Your task to perform on an android device: remove spam from my inbox in the gmail app Image 0: 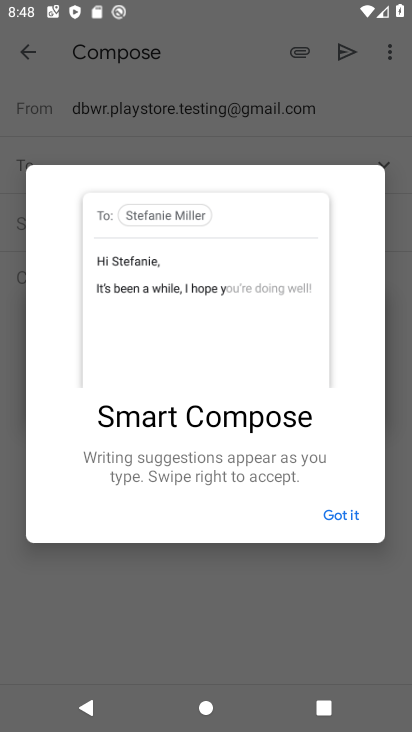
Step 0: press home button
Your task to perform on an android device: remove spam from my inbox in the gmail app Image 1: 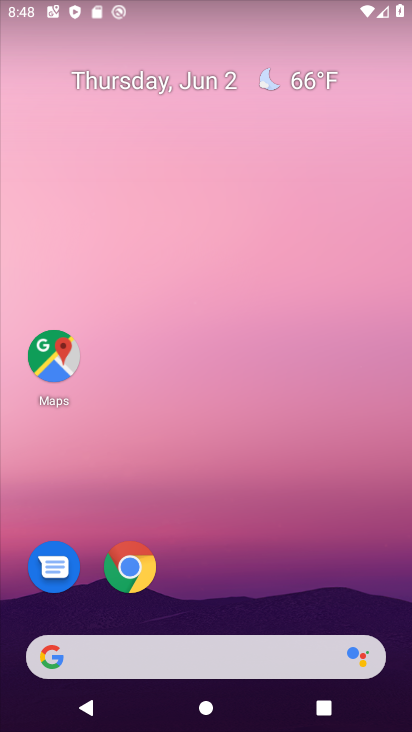
Step 1: drag from (190, 610) to (234, 172)
Your task to perform on an android device: remove spam from my inbox in the gmail app Image 2: 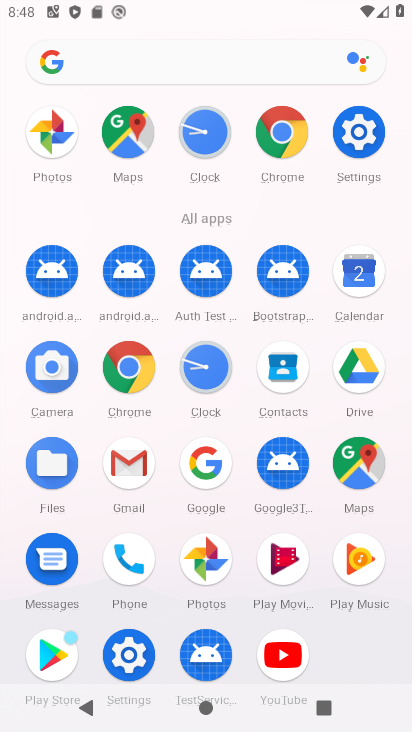
Step 2: click (145, 468)
Your task to perform on an android device: remove spam from my inbox in the gmail app Image 3: 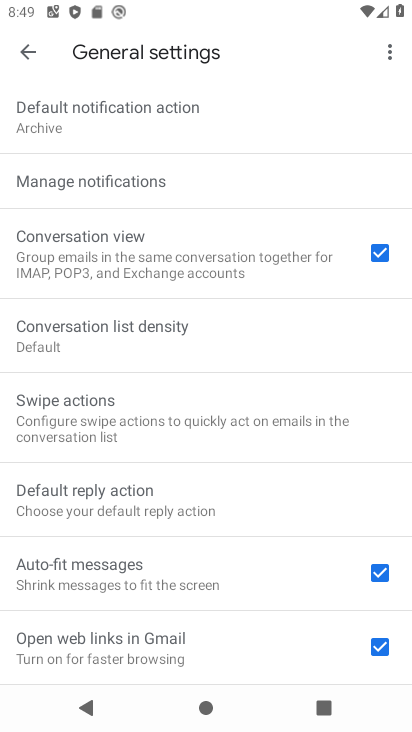
Step 3: click (35, 57)
Your task to perform on an android device: remove spam from my inbox in the gmail app Image 4: 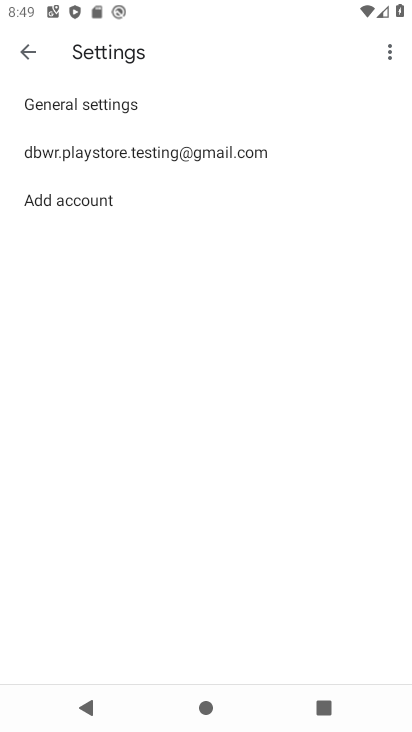
Step 4: click (35, 57)
Your task to perform on an android device: remove spam from my inbox in the gmail app Image 5: 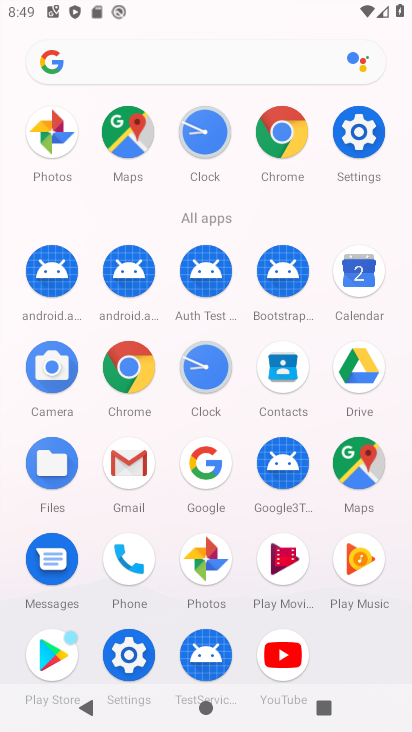
Step 5: click (136, 471)
Your task to perform on an android device: remove spam from my inbox in the gmail app Image 6: 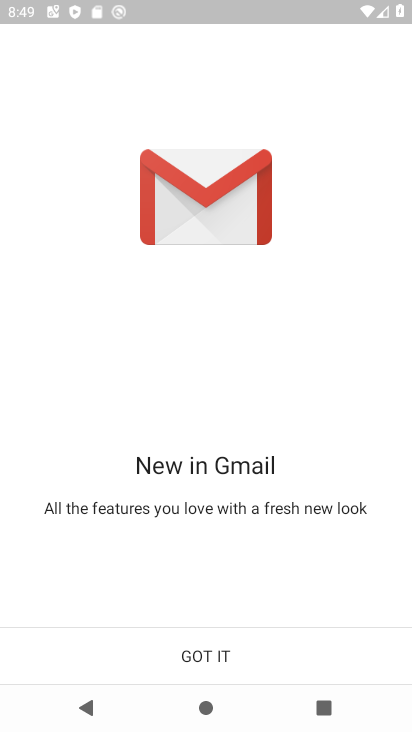
Step 6: click (224, 661)
Your task to perform on an android device: remove spam from my inbox in the gmail app Image 7: 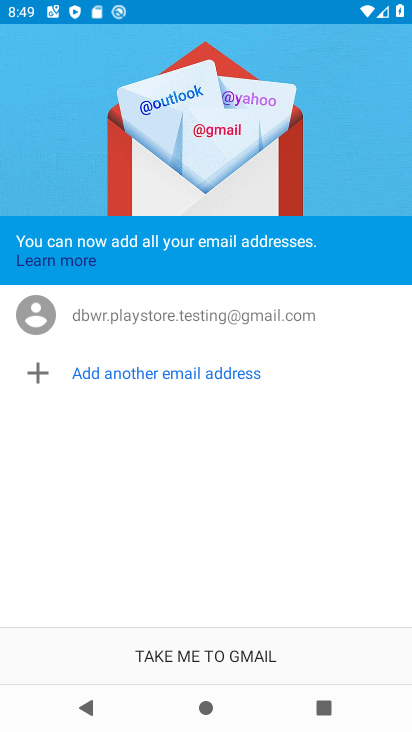
Step 7: click (225, 658)
Your task to perform on an android device: remove spam from my inbox in the gmail app Image 8: 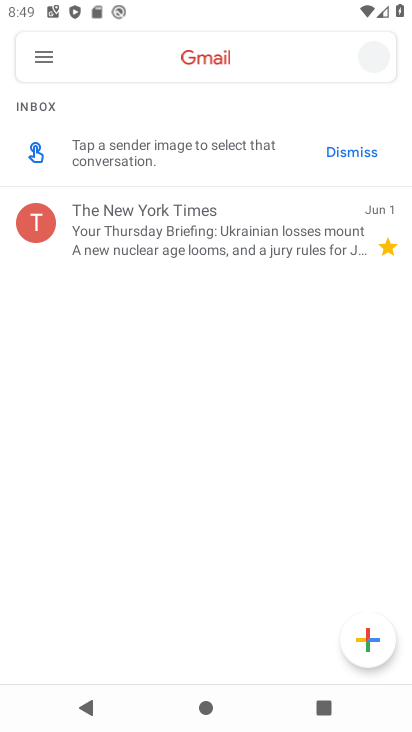
Step 8: click (47, 72)
Your task to perform on an android device: remove spam from my inbox in the gmail app Image 9: 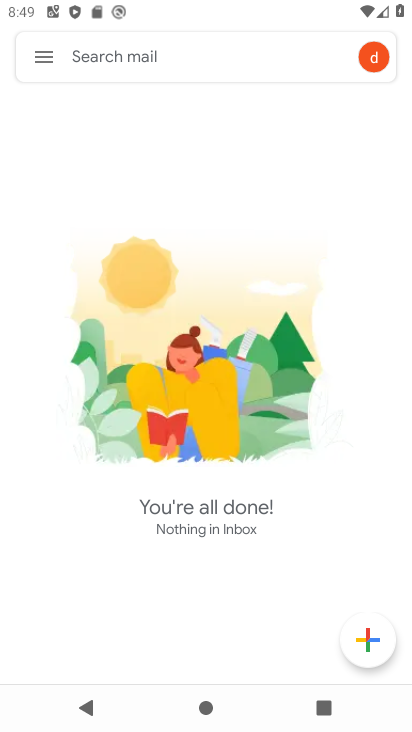
Step 9: click (38, 65)
Your task to perform on an android device: remove spam from my inbox in the gmail app Image 10: 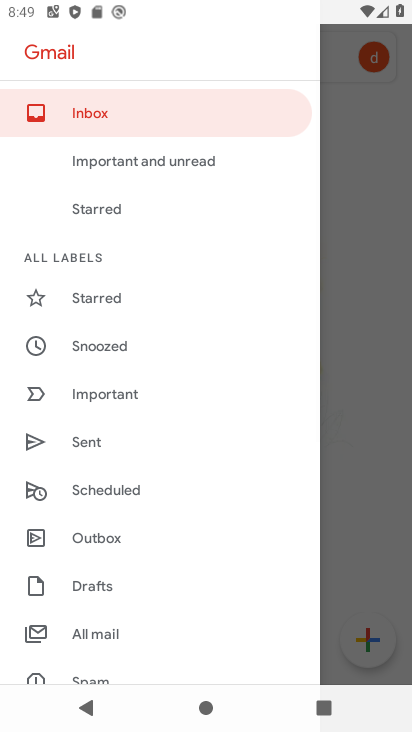
Step 10: drag from (109, 589) to (131, 305)
Your task to perform on an android device: remove spam from my inbox in the gmail app Image 11: 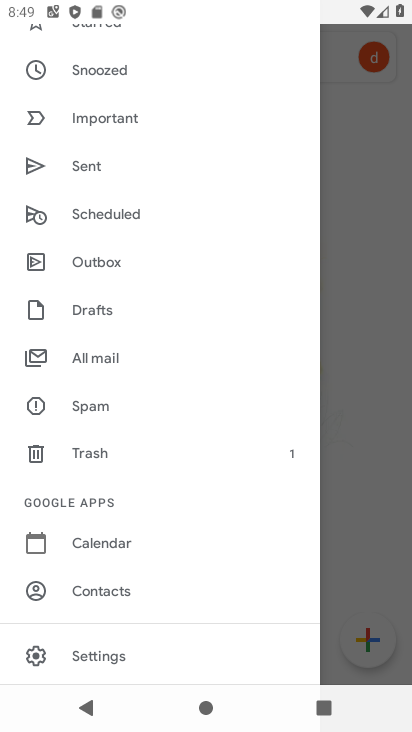
Step 11: click (80, 415)
Your task to perform on an android device: remove spam from my inbox in the gmail app Image 12: 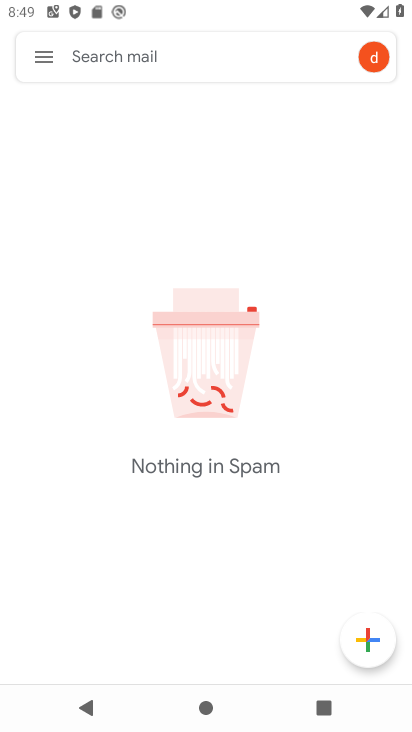
Step 12: task complete